Your task to perform on an android device: Go to Yahoo.com Image 0: 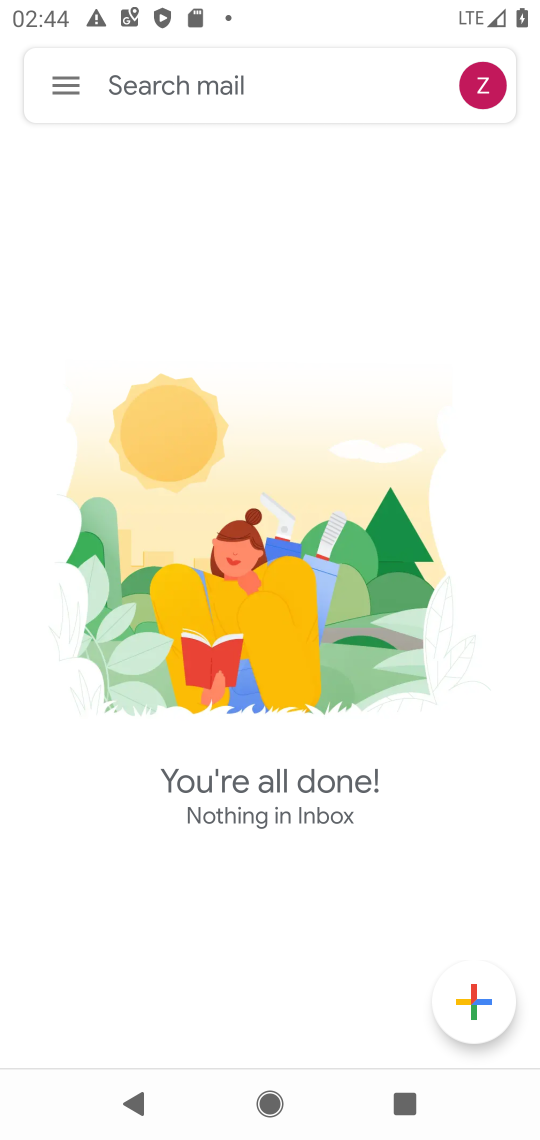
Step 0: press home button
Your task to perform on an android device: Go to Yahoo.com Image 1: 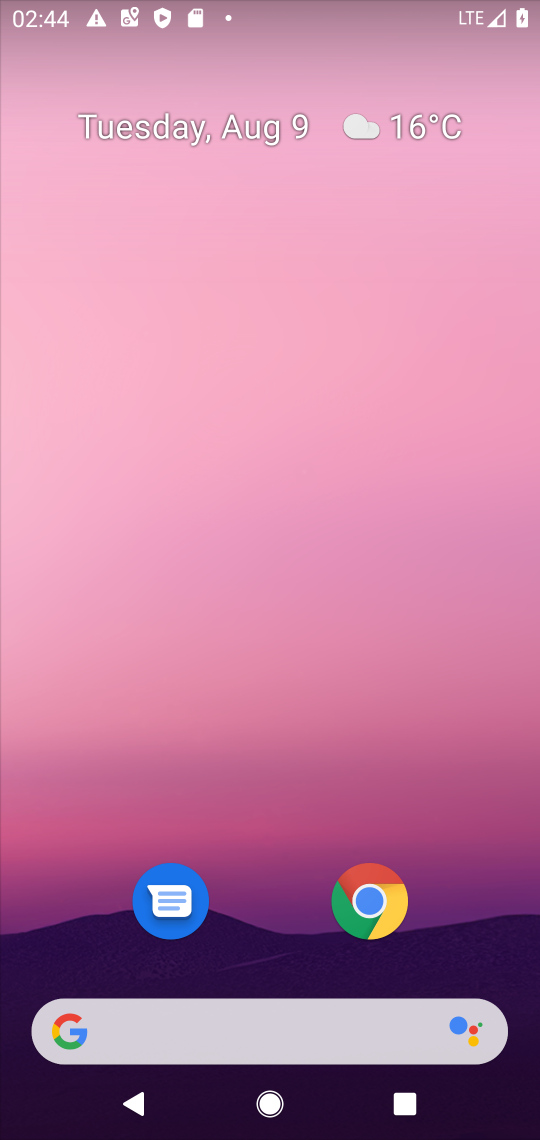
Step 1: click (365, 898)
Your task to perform on an android device: Go to Yahoo.com Image 2: 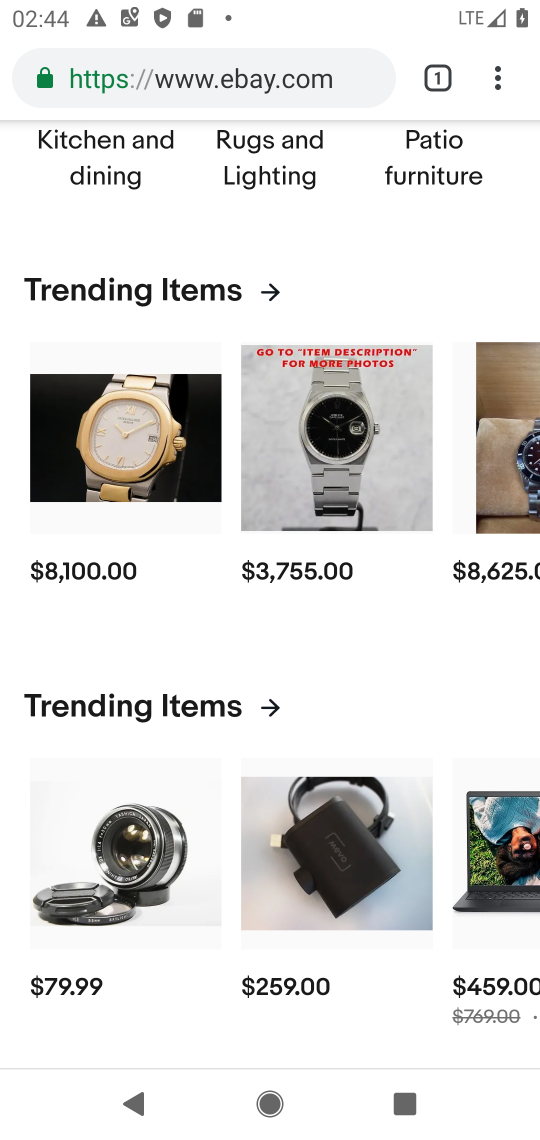
Step 2: click (356, 75)
Your task to perform on an android device: Go to Yahoo.com Image 3: 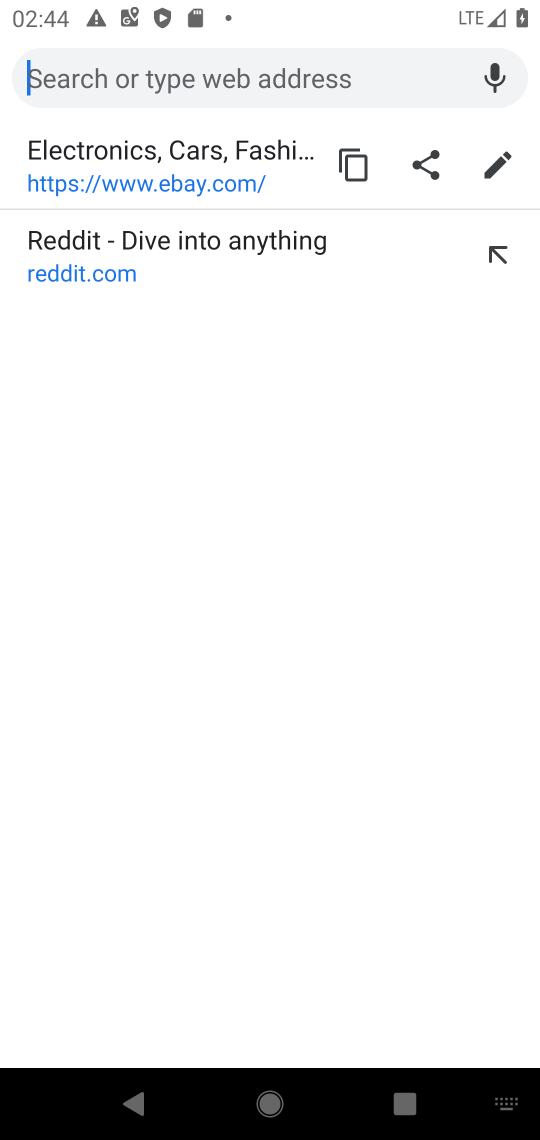
Step 3: type "yahoo.com"
Your task to perform on an android device: Go to Yahoo.com Image 4: 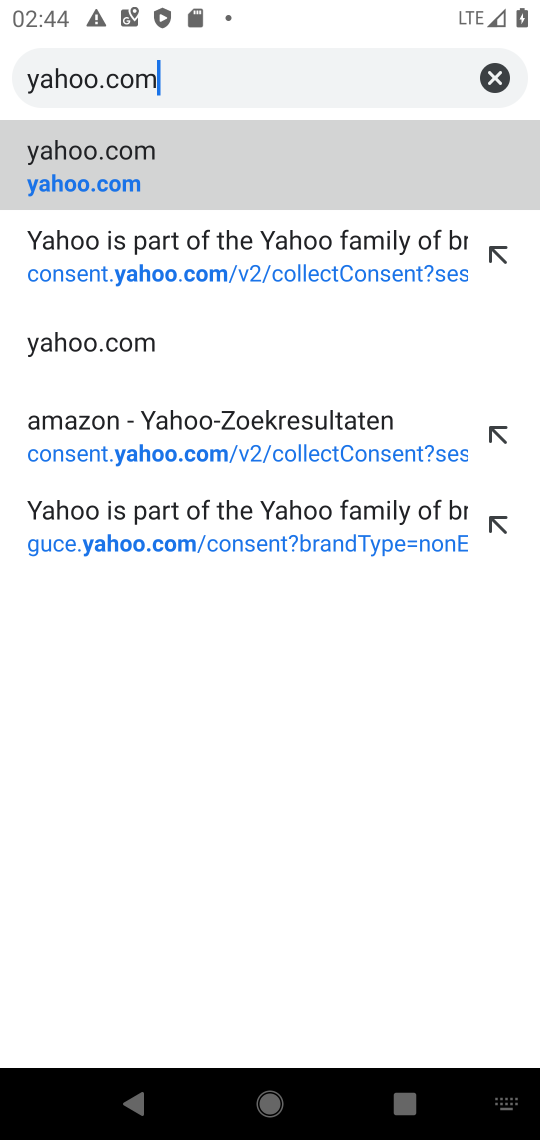
Step 4: click (79, 141)
Your task to perform on an android device: Go to Yahoo.com Image 5: 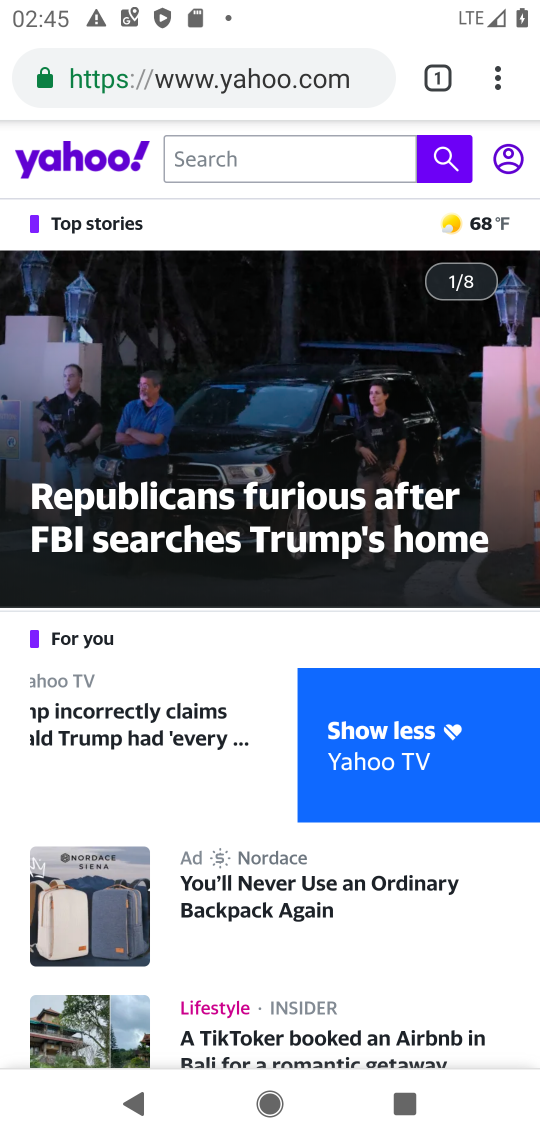
Step 5: task complete